Your task to perform on an android device: empty trash in the gmail app Image 0: 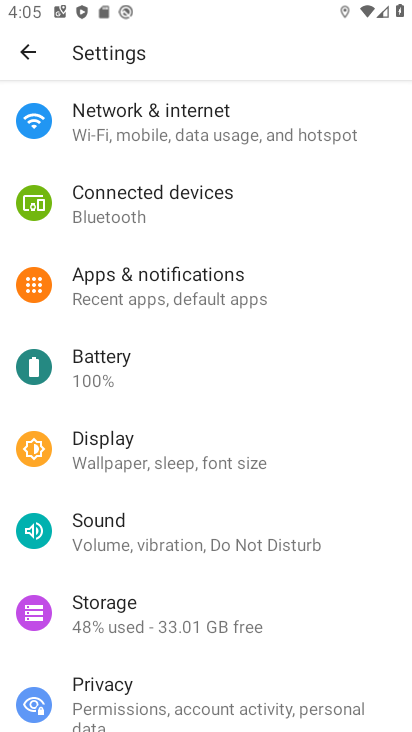
Step 0: press home button
Your task to perform on an android device: empty trash in the gmail app Image 1: 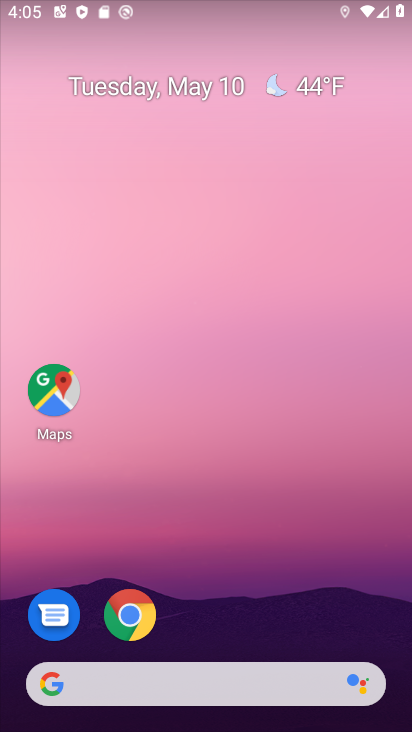
Step 1: drag from (197, 723) to (200, 107)
Your task to perform on an android device: empty trash in the gmail app Image 2: 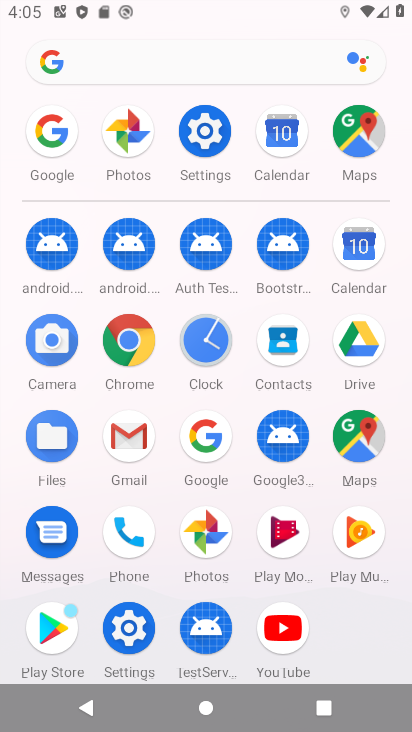
Step 2: click (130, 435)
Your task to perform on an android device: empty trash in the gmail app Image 3: 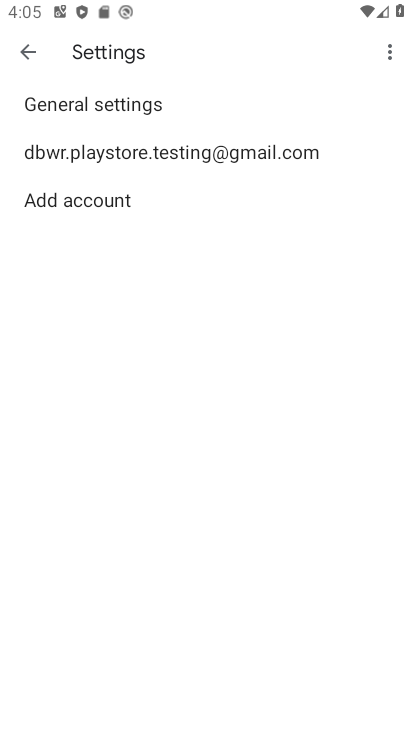
Step 3: click (27, 47)
Your task to perform on an android device: empty trash in the gmail app Image 4: 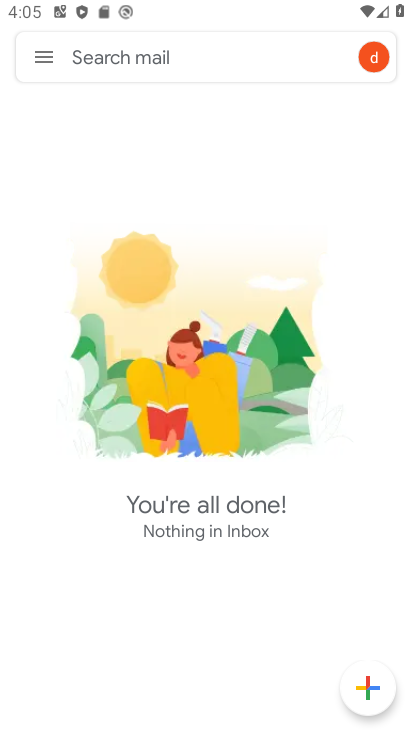
Step 4: click (40, 53)
Your task to perform on an android device: empty trash in the gmail app Image 5: 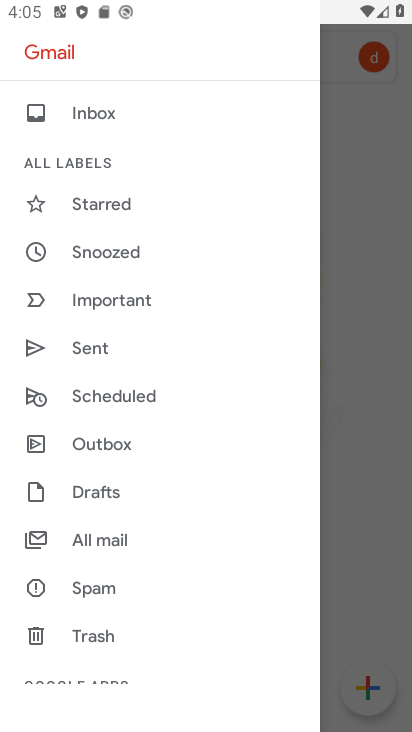
Step 5: click (103, 631)
Your task to perform on an android device: empty trash in the gmail app Image 6: 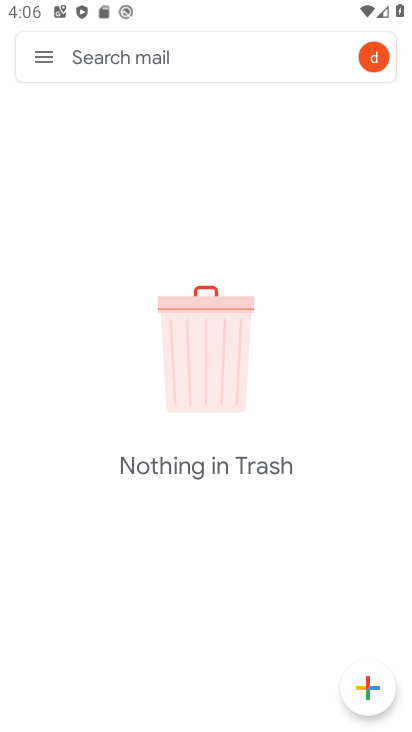
Step 6: task complete